Your task to perform on an android device: Go to accessibility settings Image 0: 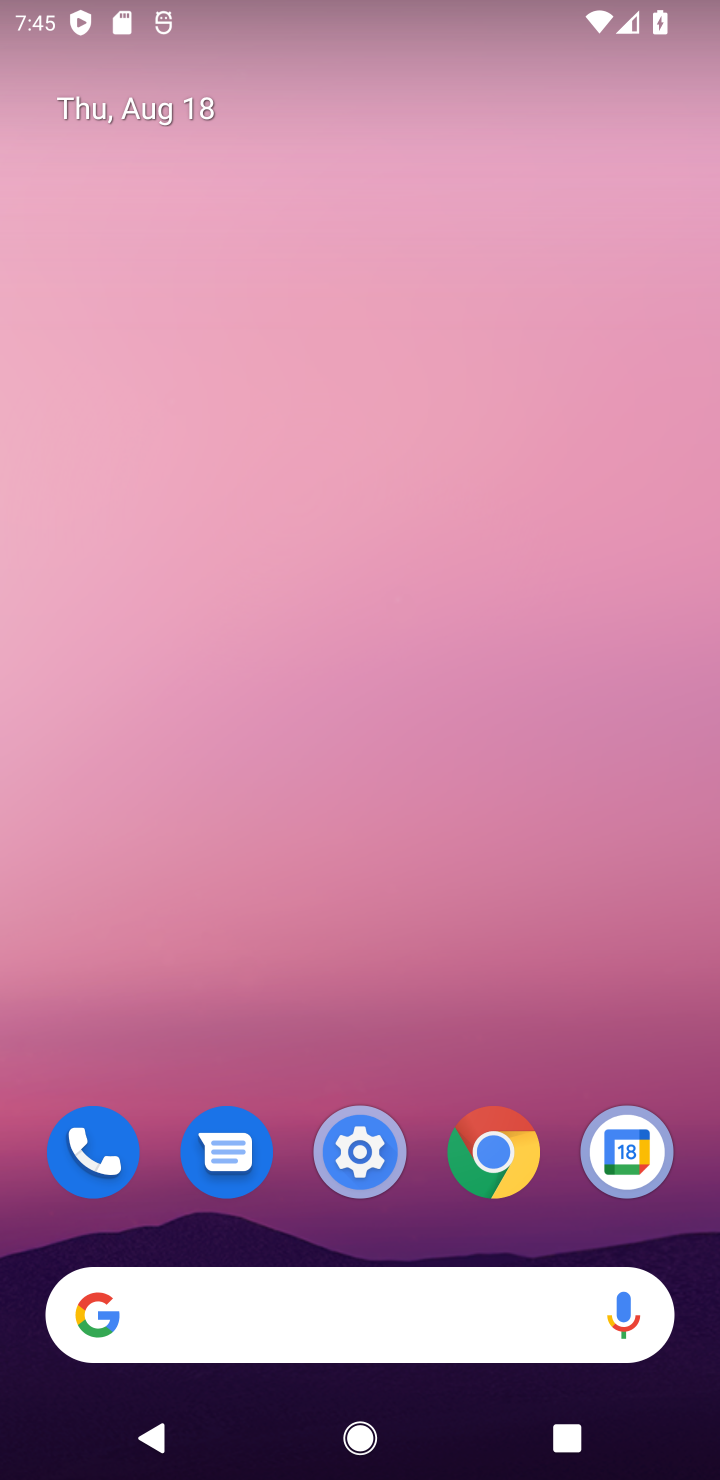
Step 0: press home button
Your task to perform on an android device: Go to accessibility settings Image 1: 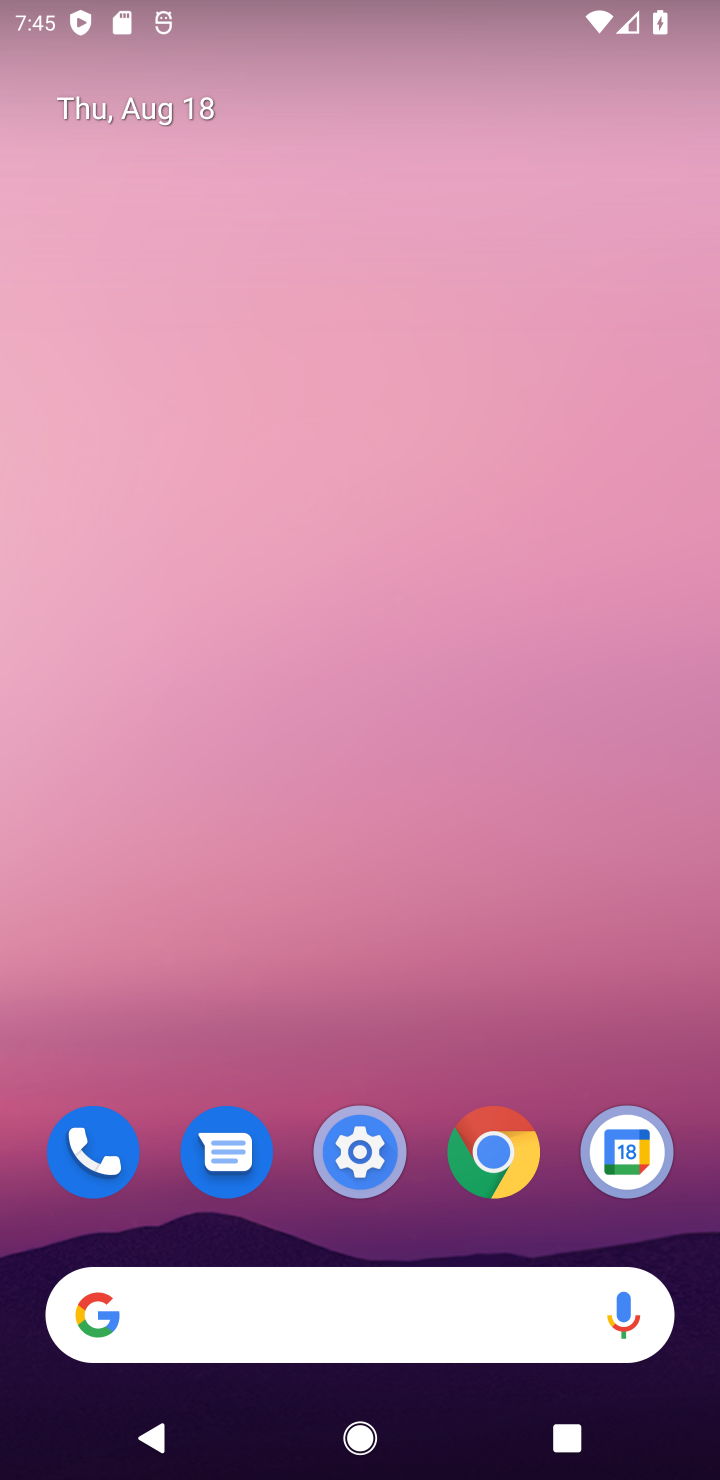
Step 1: click (383, 1157)
Your task to perform on an android device: Go to accessibility settings Image 2: 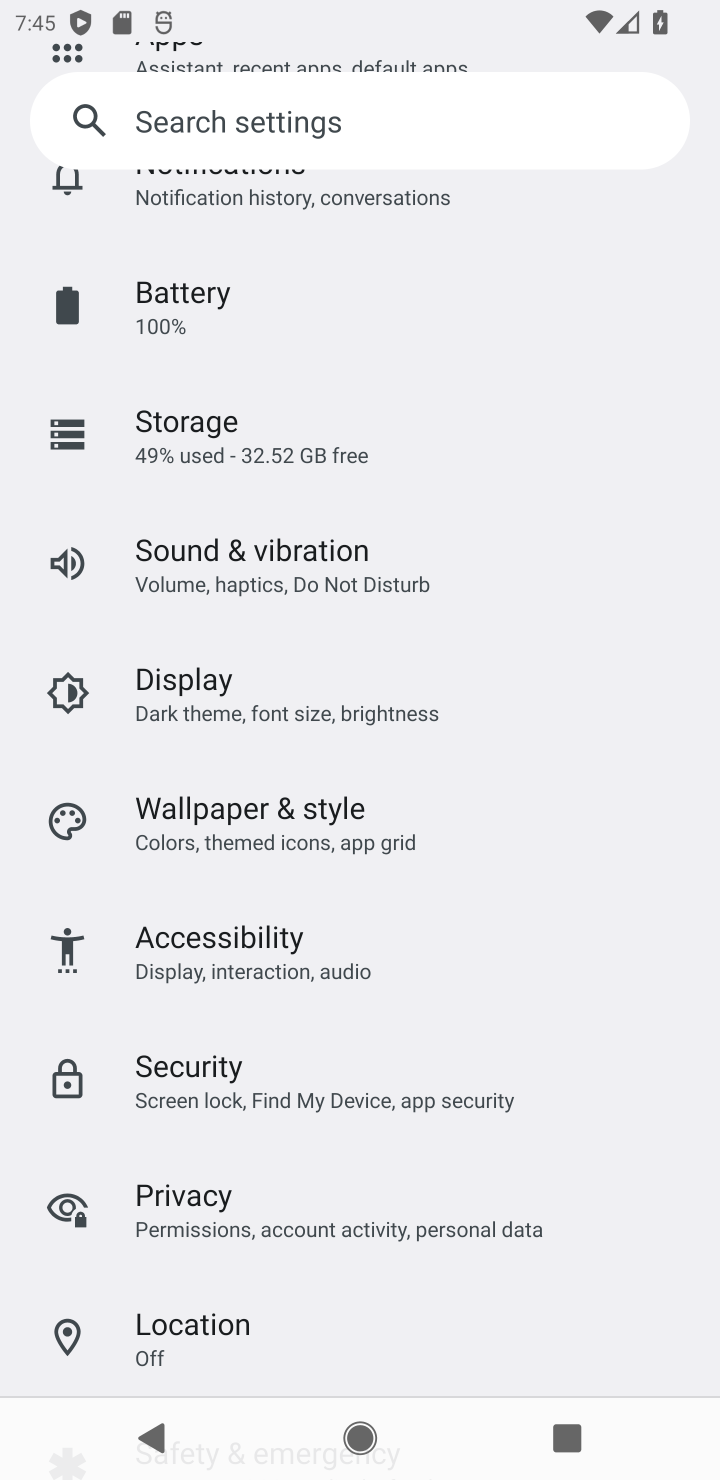
Step 2: click (215, 949)
Your task to perform on an android device: Go to accessibility settings Image 3: 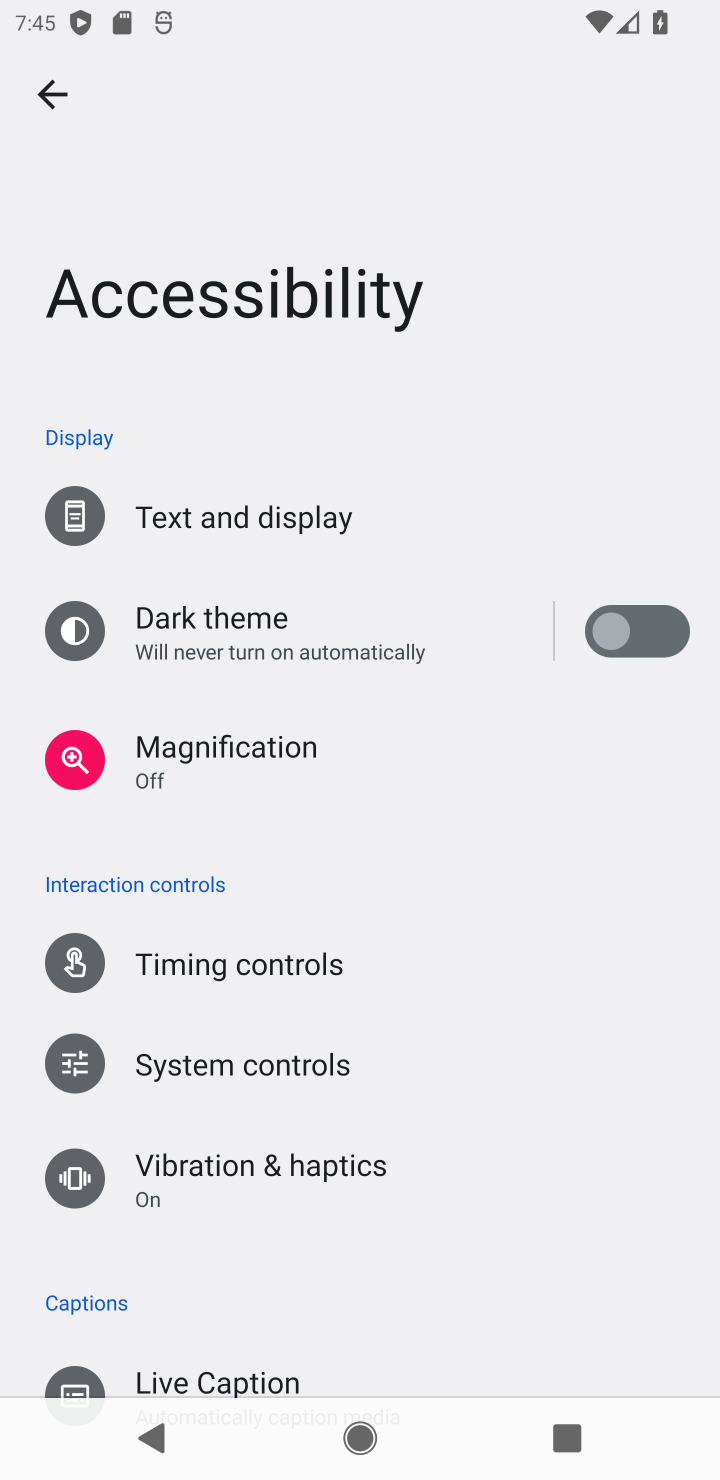
Step 3: task complete